Your task to perform on an android device: open app "ZOOM Cloud Meetings" (install if not already installed), go to login, and select forgot password Image 0: 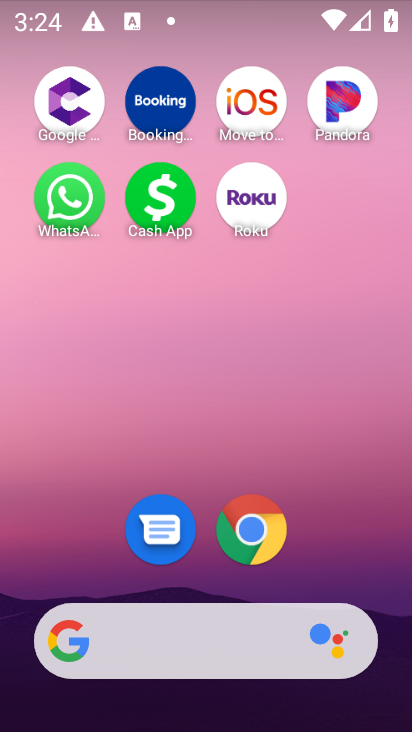
Step 0: drag from (157, 447) to (154, 171)
Your task to perform on an android device: open app "ZOOM Cloud Meetings" (install if not already installed), go to login, and select forgot password Image 1: 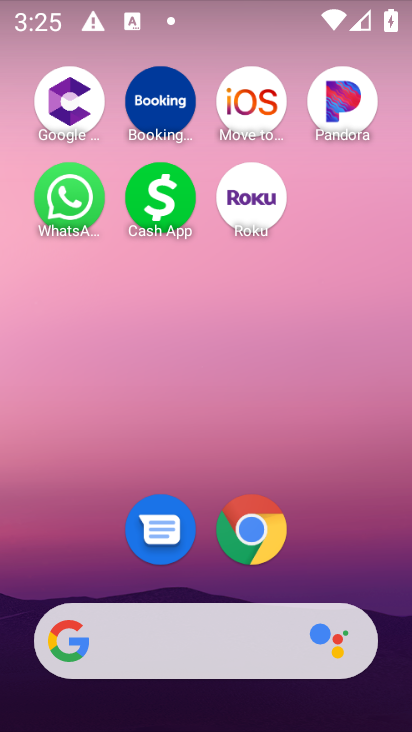
Step 1: drag from (225, 367) to (157, 95)
Your task to perform on an android device: open app "ZOOM Cloud Meetings" (install if not already installed), go to login, and select forgot password Image 2: 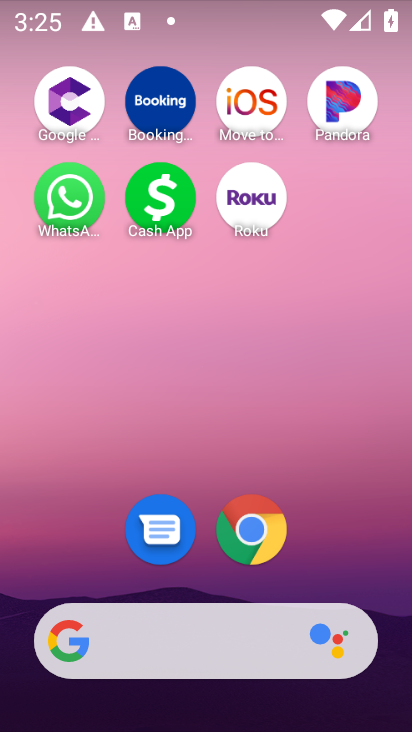
Step 2: drag from (263, 512) to (242, 38)
Your task to perform on an android device: open app "ZOOM Cloud Meetings" (install if not already installed), go to login, and select forgot password Image 3: 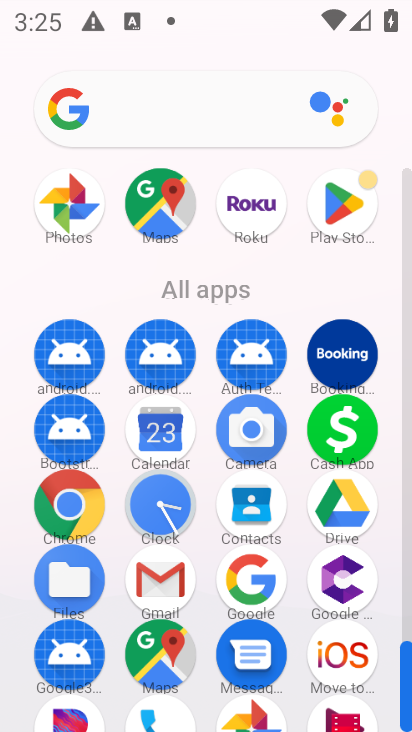
Step 3: click (335, 216)
Your task to perform on an android device: open app "ZOOM Cloud Meetings" (install if not already installed), go to login, and select forgot password Image 4: 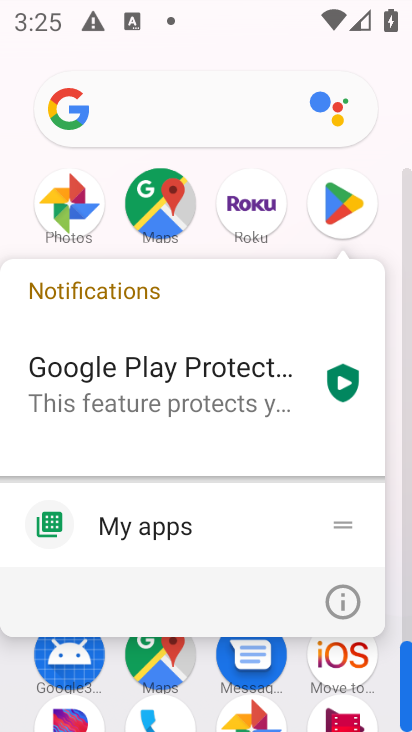
Step 4: click (337, 214)
Your task to perform on an android device: open app "ZOOM Cloud Meetings" (install if not already installed), go to login, and select forgot password Image 5: 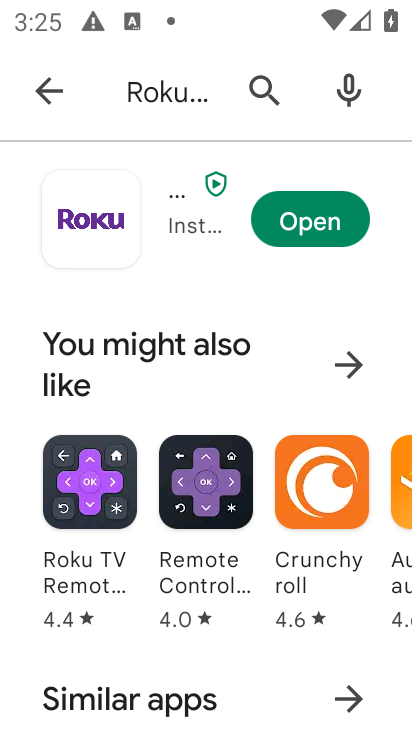
Step 5: press back button
Your task to perform on an android device: open app "ZOOM Cloud Meetings" (install if not already installed), go to login, and select forgot password Image 6: 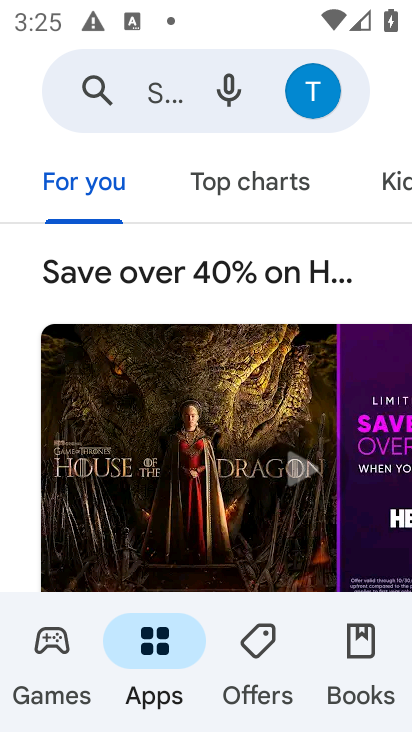
Step 6: click (142, 118)
Your task to perform on an android device: open app "ZOOM Cloud Meetings" (install if not already installed), go to login, and select forgot password Image 7: 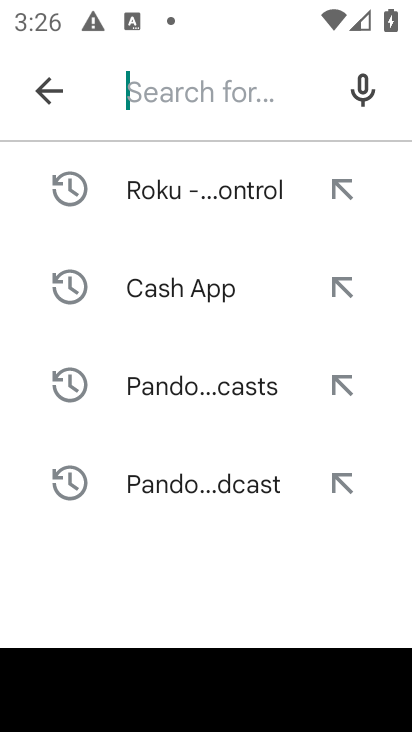
Step 7: type "ZOOM Cloud Meetings"
Your task to perform on an android device: open app "ZOOM Cloud Meetings" (install if not already installed), go to login, and select forgot password Image 8: 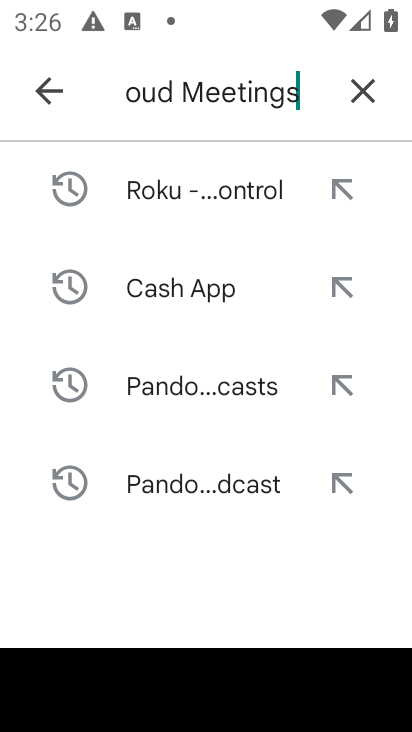
Step 8: press enter
Your task to perform on an android device: open app "ZOOM Cloud Meetings" (install if not already installed), go to login, and select forgot password Image 9: 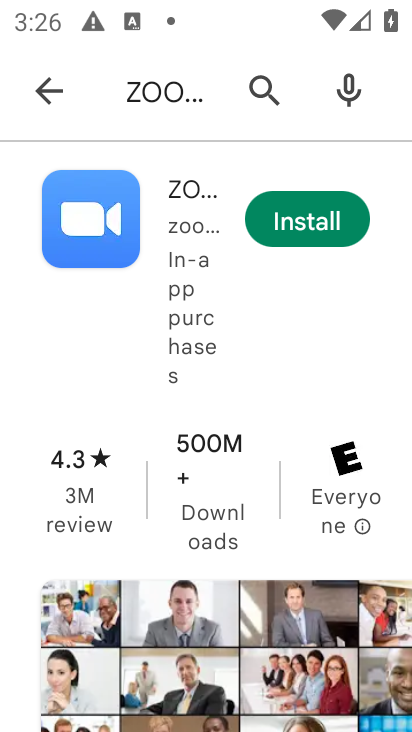
Step 9: click (294, 222)
Your task to perform on an android device: open app "ZOOM Cloud Meetings" (install if not already installed), go to login, and select forgot password Image 10: 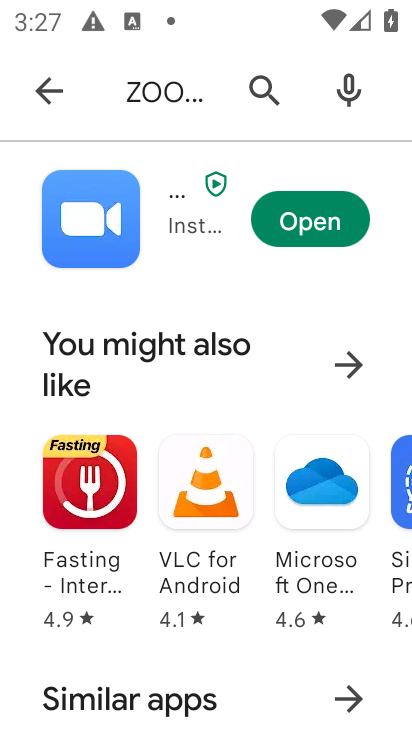
Step 10: click (320, 230)
Your task to perform on an android device: open app "ZOOM Cloud Meetings" (install if not already installed), go to login, and select forgot password Image 11: 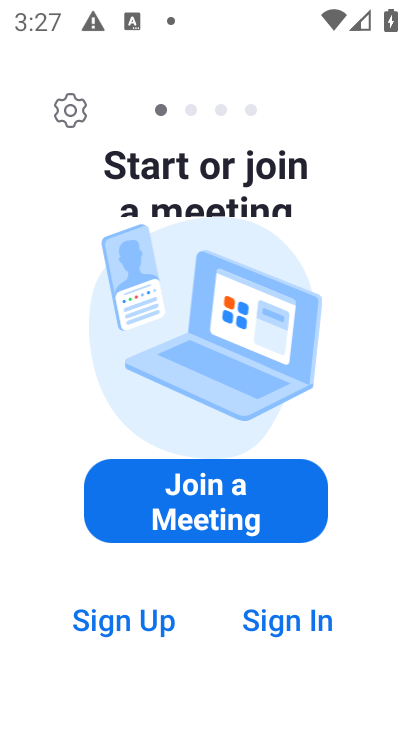
Step 11: click (295, 624)
Your task to perform on an android device: open app "ZOOM Cloud Meetings" (install if not already installed), go to login, and select forgot password Image 12: 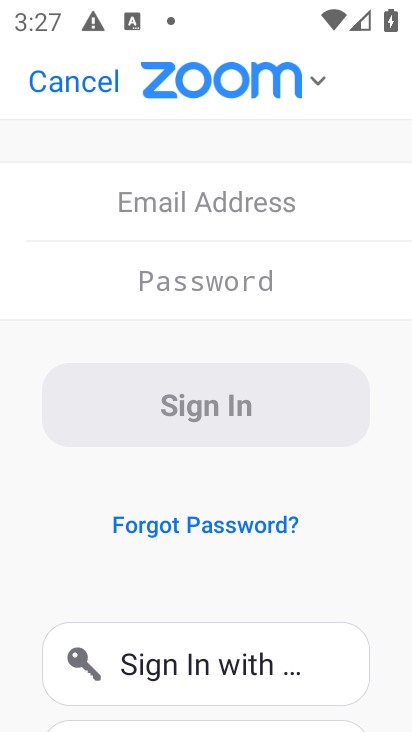
Step 12: click (208, 515)
Your task to perform on an android device: open app "ZOOM Cloud Meetings" (install if not already installed), go to login, and select forgot password Image 13: 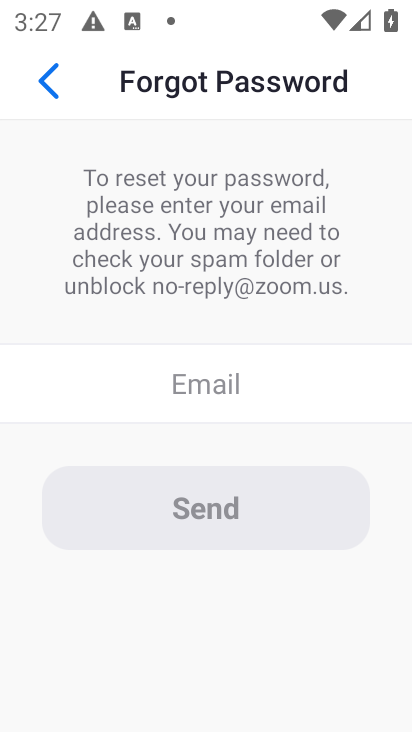
Step 13: task complete